Your task to perform on an android device: open device folders in google photos Image 0: 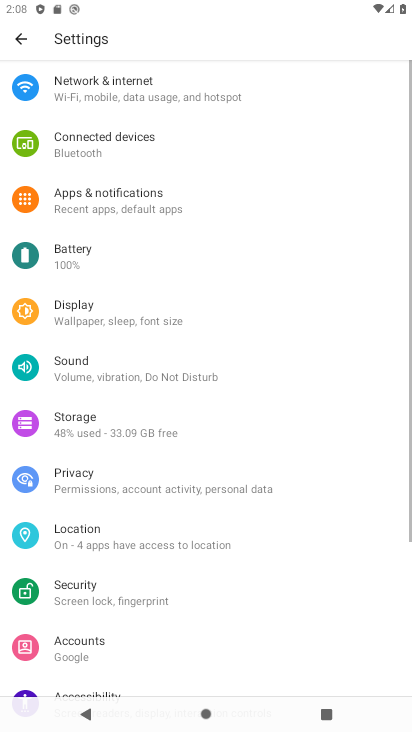
Step 0: press home button
Your task to perform on an android device: open device folders in google photos Image 1: 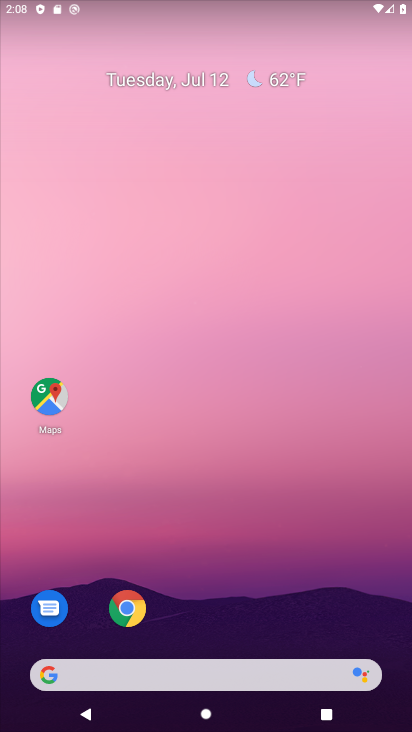
Step 1: drag from (179, 673) to (357, 204)
Your task to perform on an android device: open device folders in google photos Image 2: 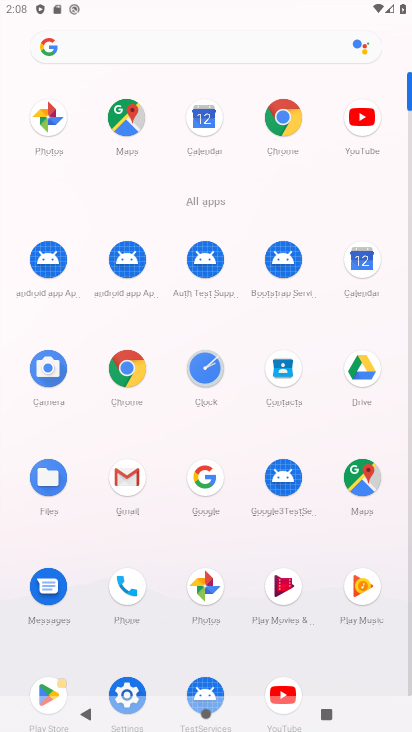
Step 2: click (202, 585)
Your task to perform on an android device: open device folders in google photos Image 3: 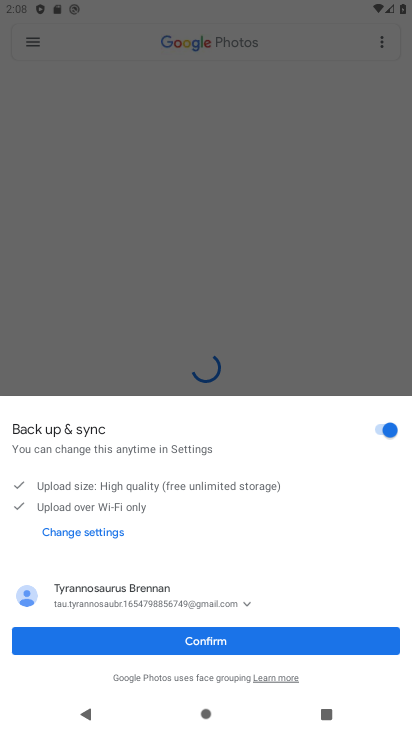
Step 3: click (204, 640)
Your task to perform on an android device: open device folders in google photos Image 4: 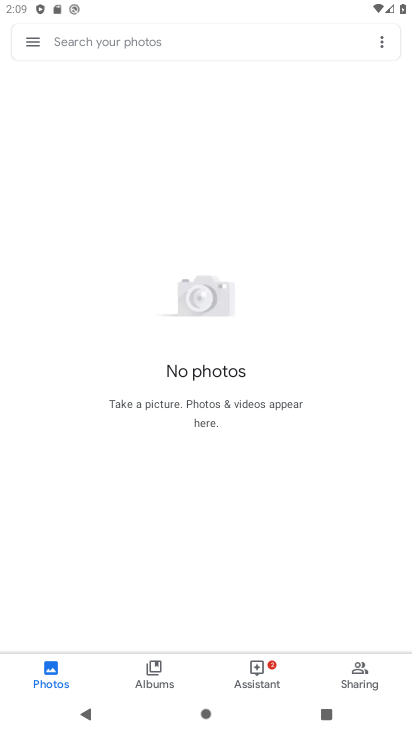
Step 4: click (34, 34)
Your task to perform on an android device: open device folders in google photos Image 5: 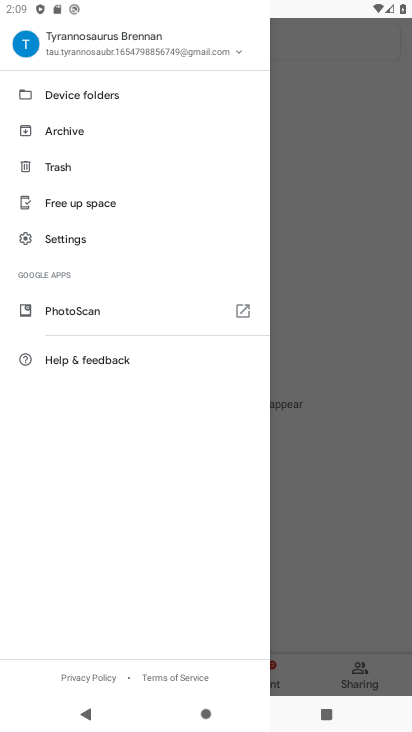
Step 5: click (63, 104)
Your task to perform on an android device: open device folders in google photos Image 6: 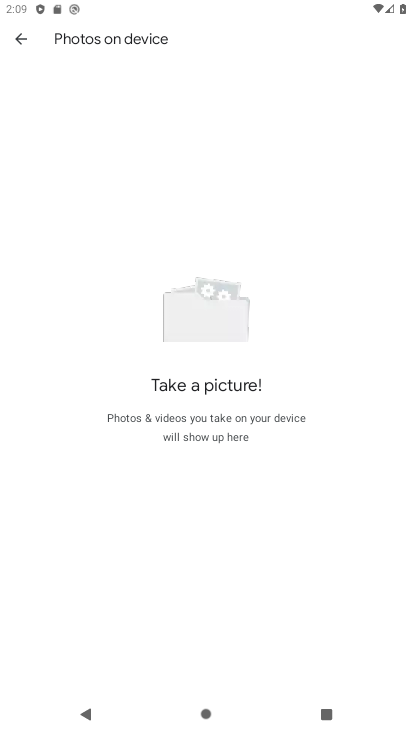
Step 6: task complete